Your task to perform on an android device: Show the shopping cart on amazon. Image 0: 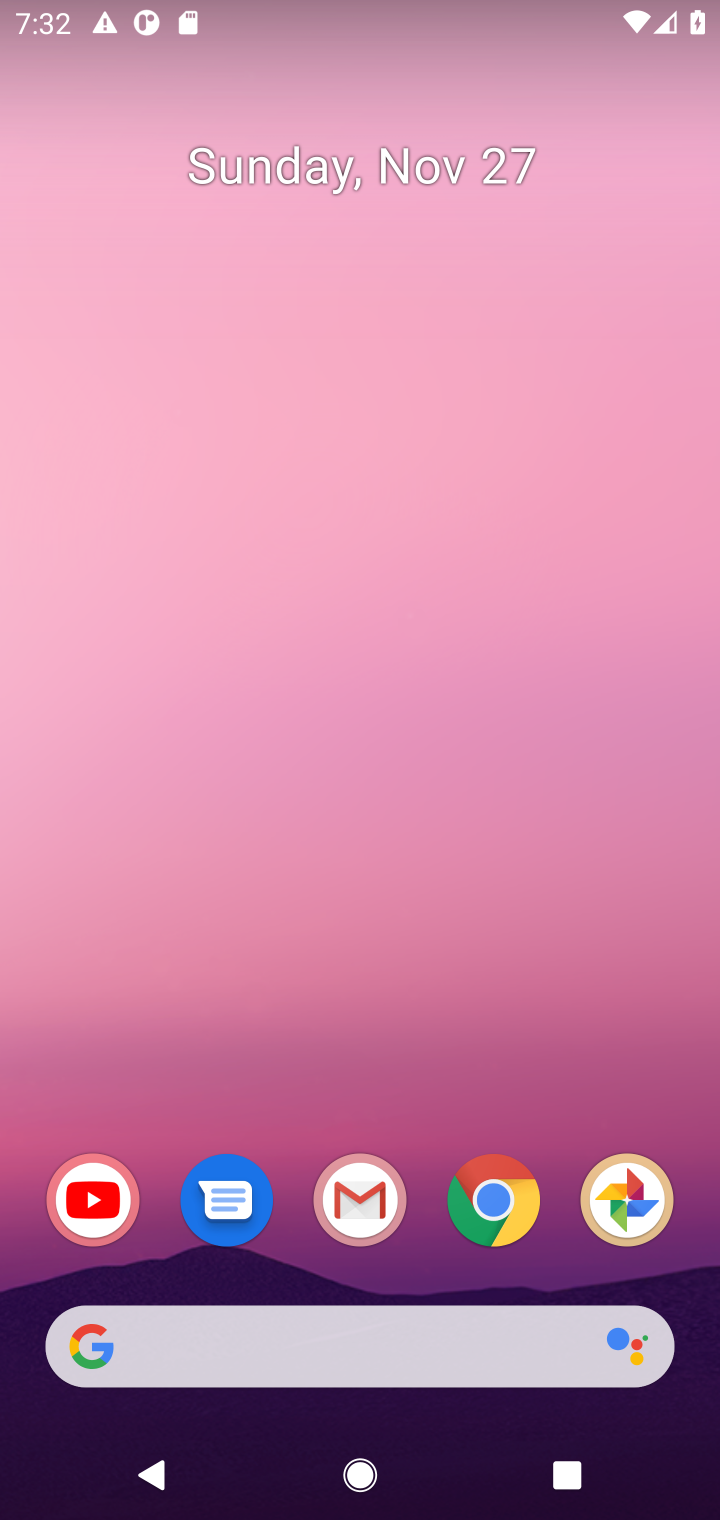
Step 0: click (492, 1207)
Your task to perform on an android device: Show the shopping cart on amazon. Image 1: 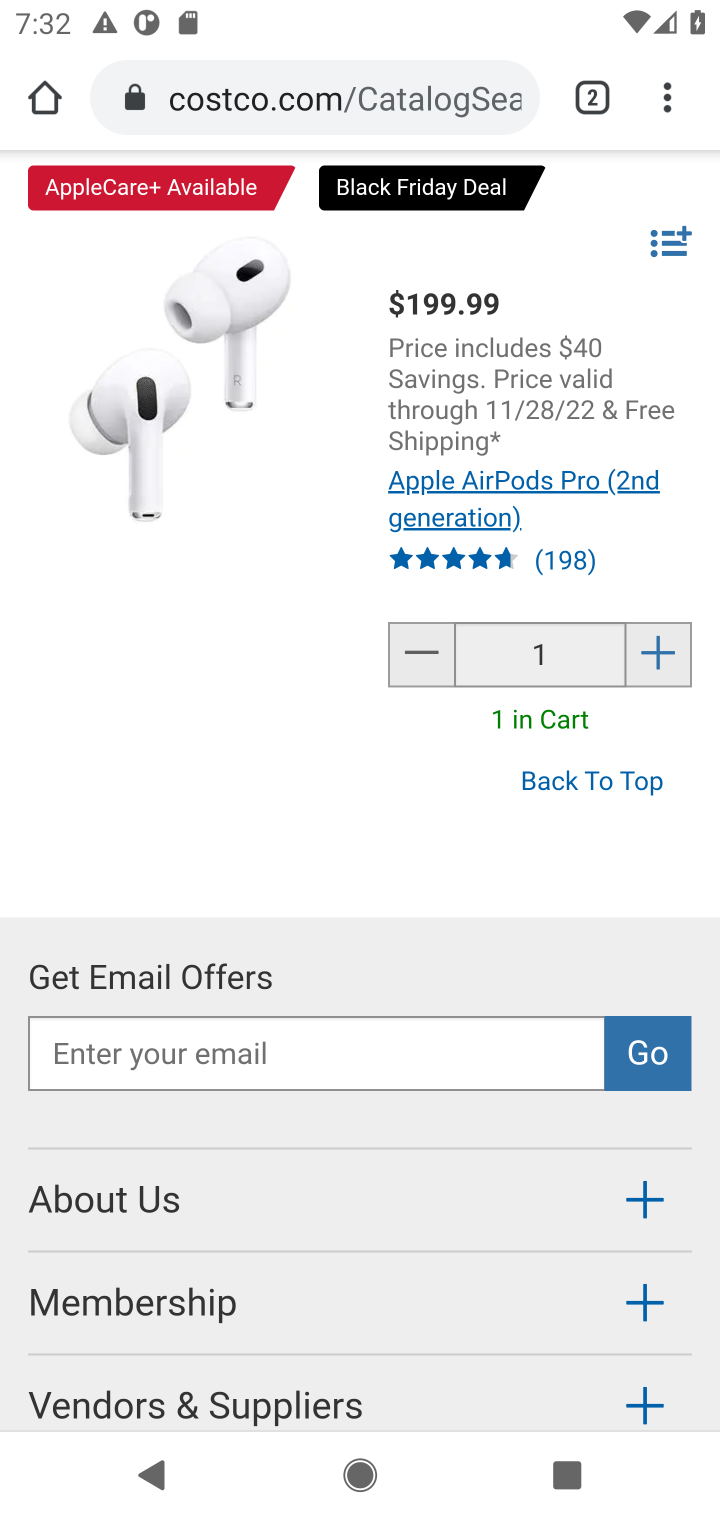
Step 1: click (267, 101)
Your task to perform on an android device: Show the shopping cart on amazon. Image 2: 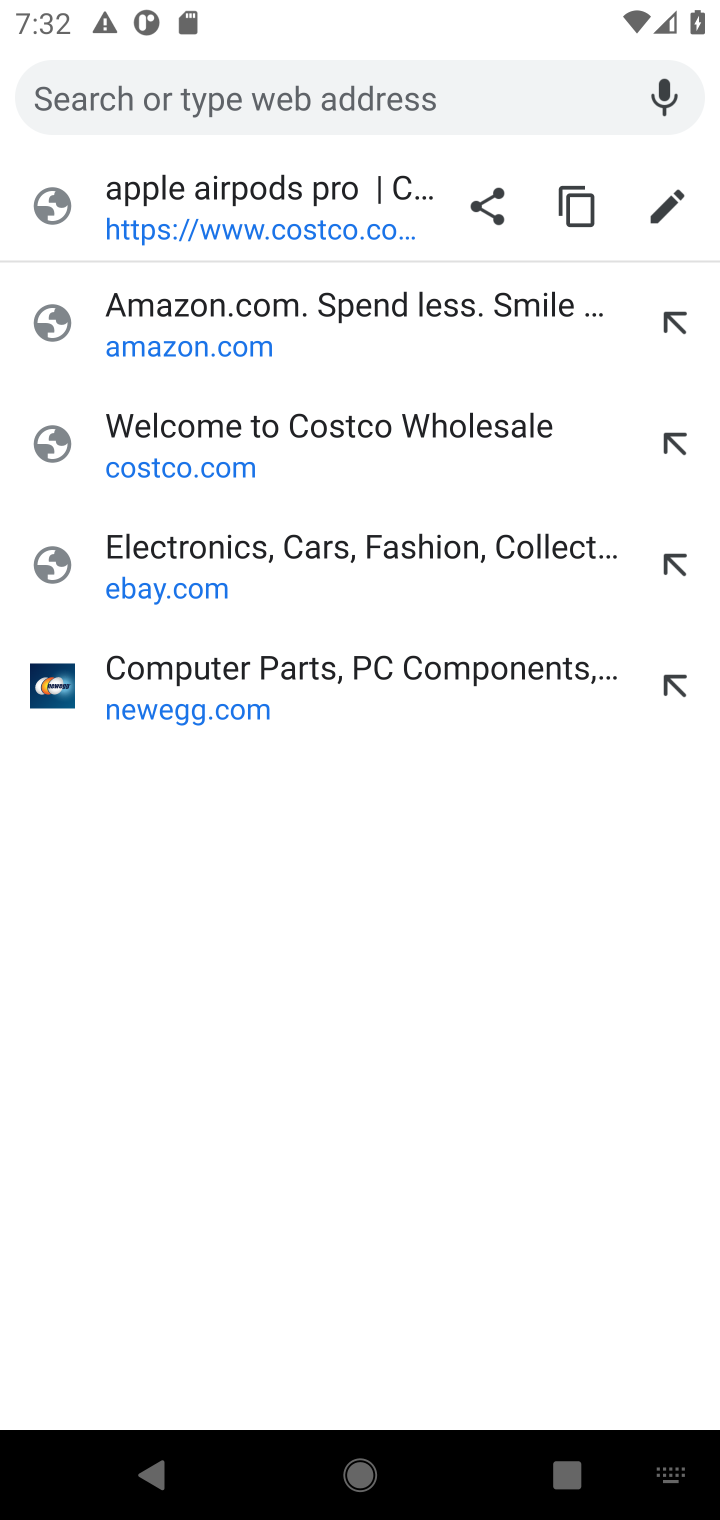
Step 2: click (173, 340)
Your task to perform on an android device: Show the shopping cart on amazon. Image 3: 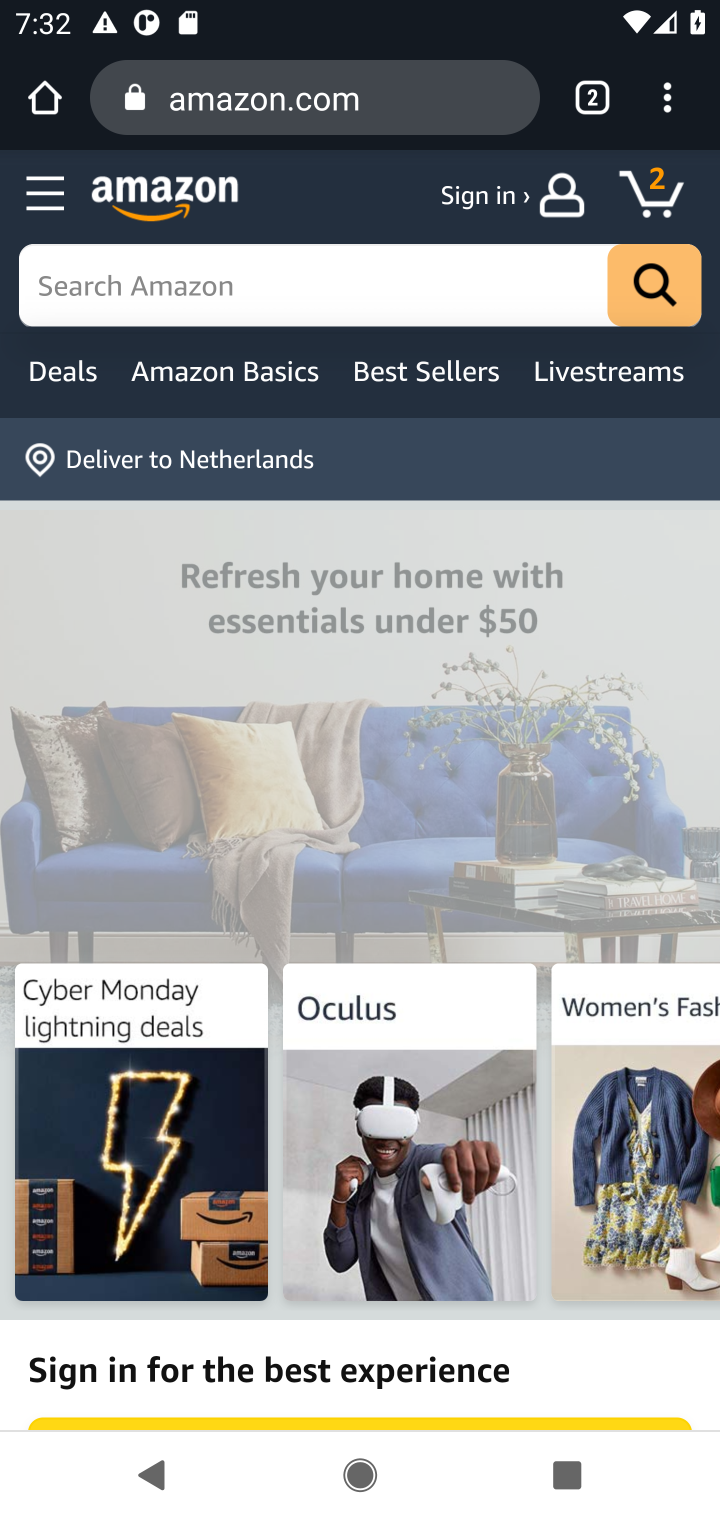
Step 3: click (635, 193)
Your task to perform on an android device: Show the shopping cart on amazon. Image 4: 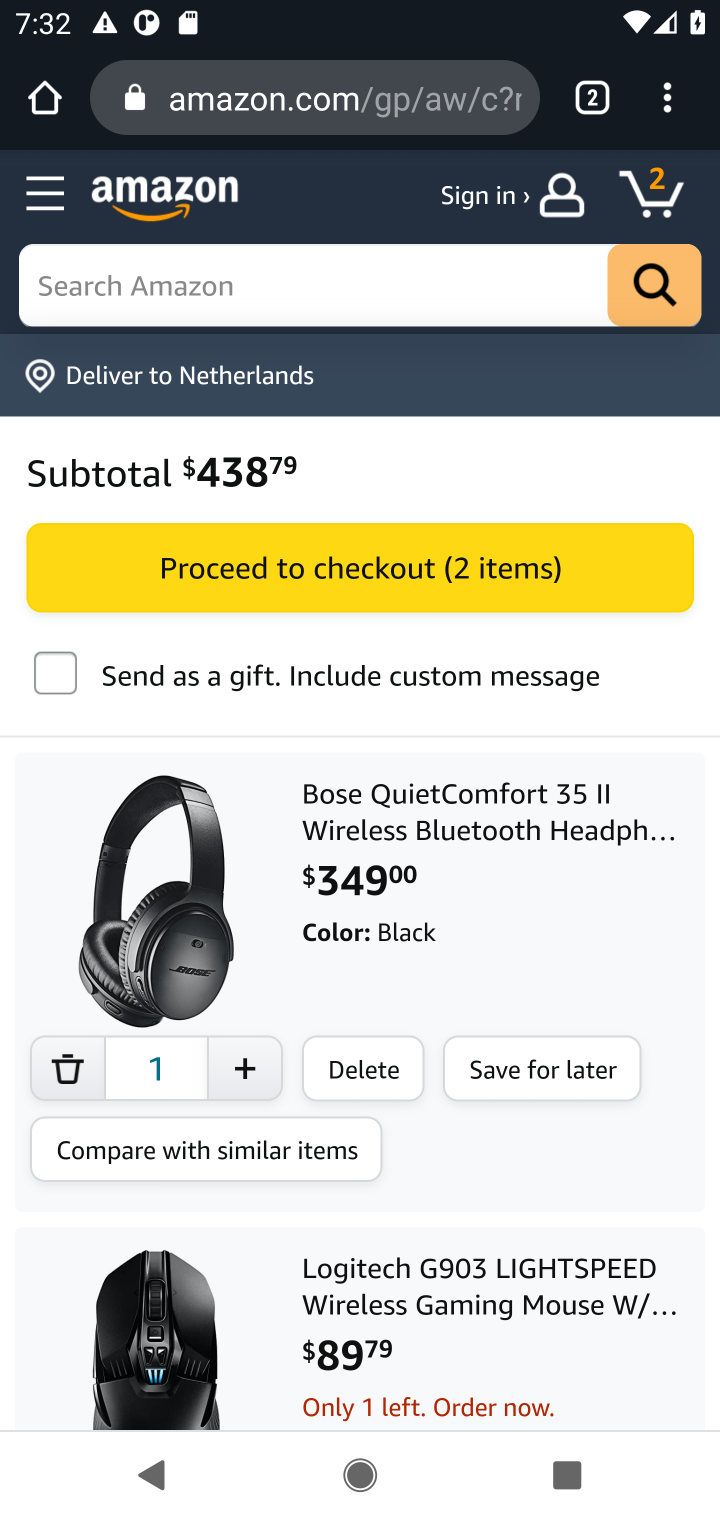
Step 4: task complete